Your task to perform on an android device: What is the recent news? Image 0: 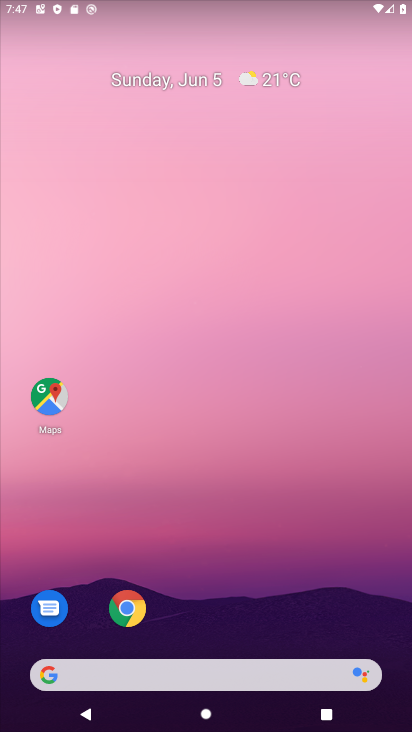
Step 0: press home button
Your task to perform on an android device: What is the recent news? Image 1: 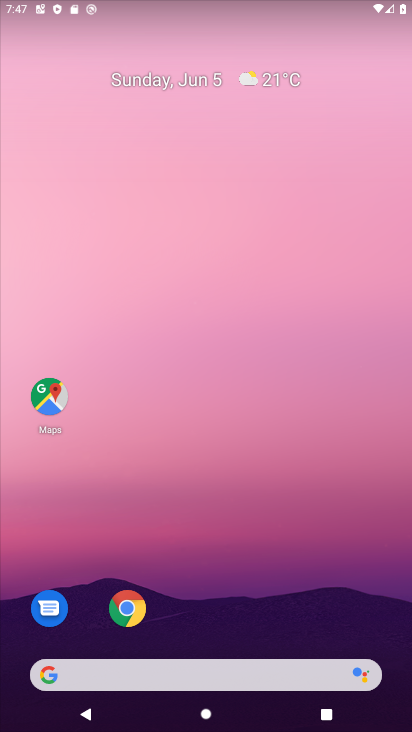
Step 1: drag from (339, 551) to (337, 188)
Your task to perform on an android device: What is the recent news? Image 2: 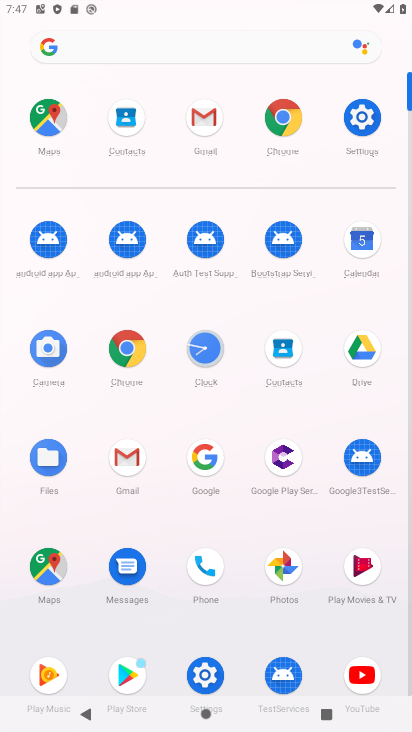
Step 2: click (131, 366)
Your task to perform on an android device: What is the recent news? Image 3: 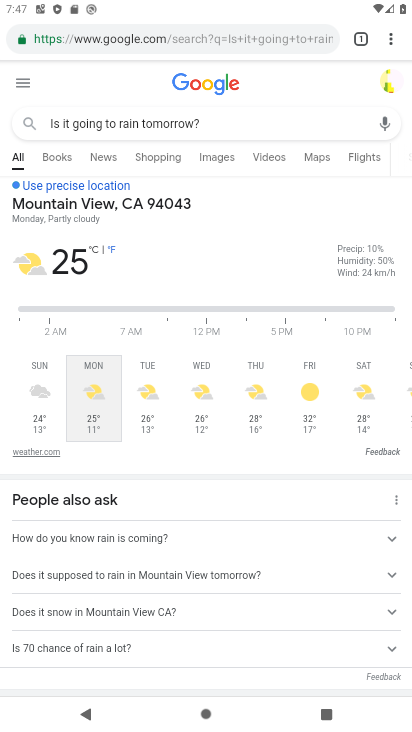
Step 3: click (124, 37)
Your task to perform on an android device: What is the recent news? Image 4: 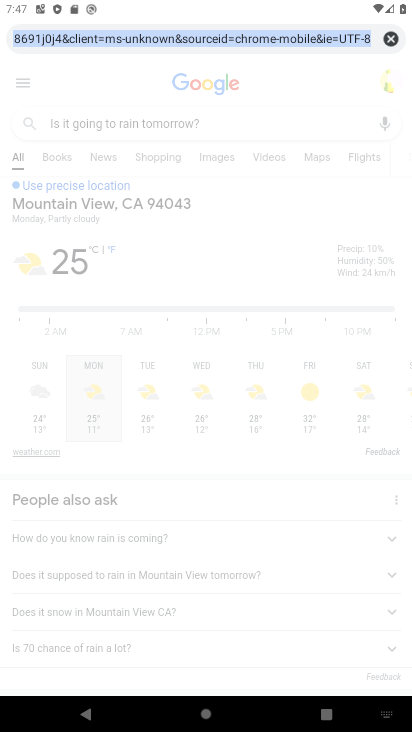
Step 4: click (392, 36)
Your task to perform on an android device: What is the recent news? Image 5: 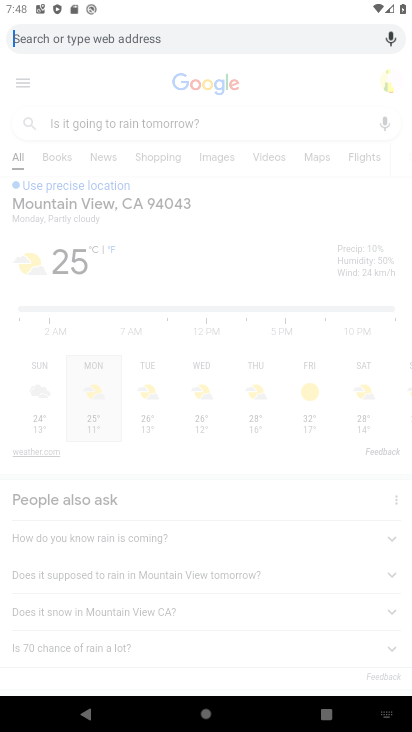
Step 5: type "what is the recent news "
Your task to perform on an android device: What is the recent news? Image 6: 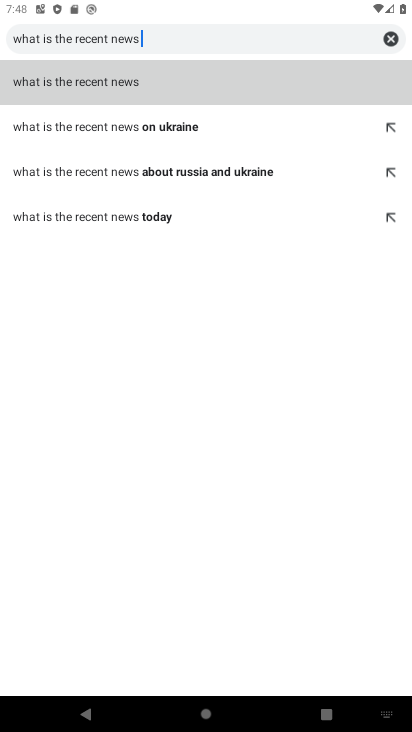
Step 6: click (155, 84)
Your task to perform on an android device: What is the recent news? Image 7: 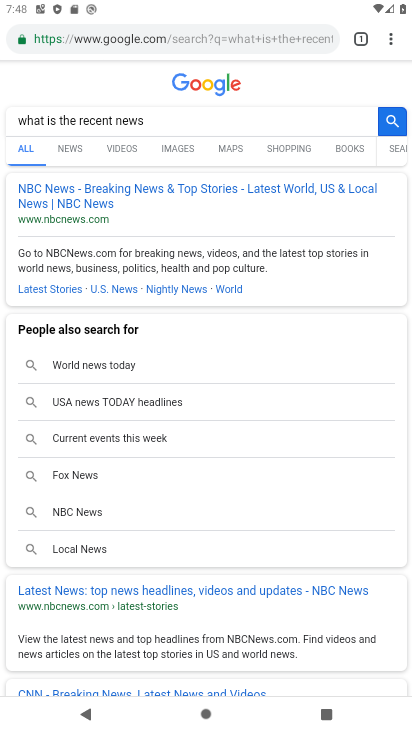
Step 7: task complete